Your task to perform on an android device: delete browsing data in the chrome app Image 0: 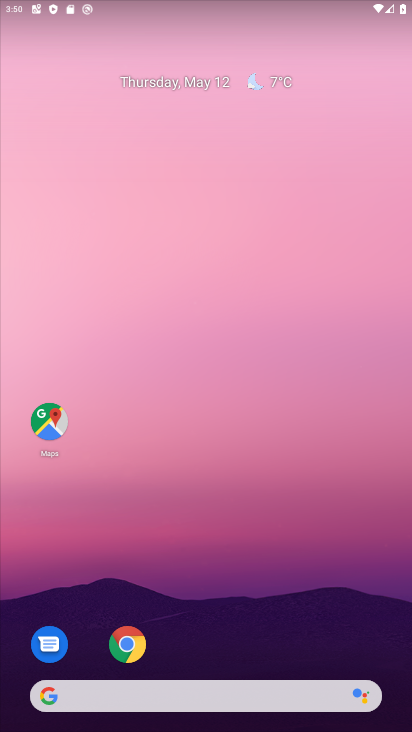
Step 0: drag from (205, 667) to (224, 145)
Your task to perform on an android device: delete browsing data in the chrome app Image 1: 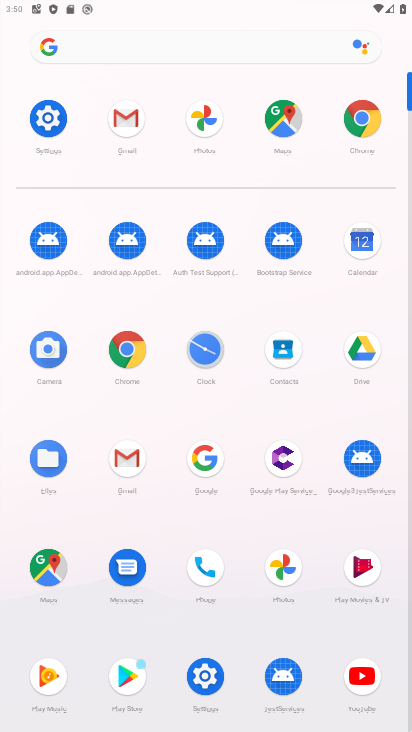
Step 1: click (125, 346)
Your task to perform on an android device: delete browsing data in the chrome app Image 2: 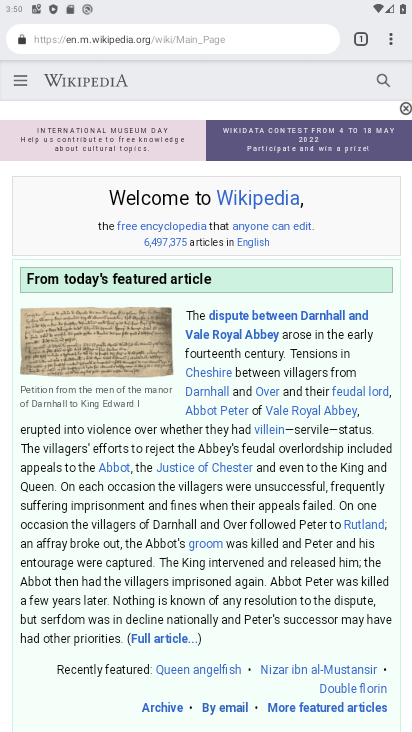
Step 2: click (387, 29)
Your task to perform on an android device: delete browsing data in the chrome app Image 3: 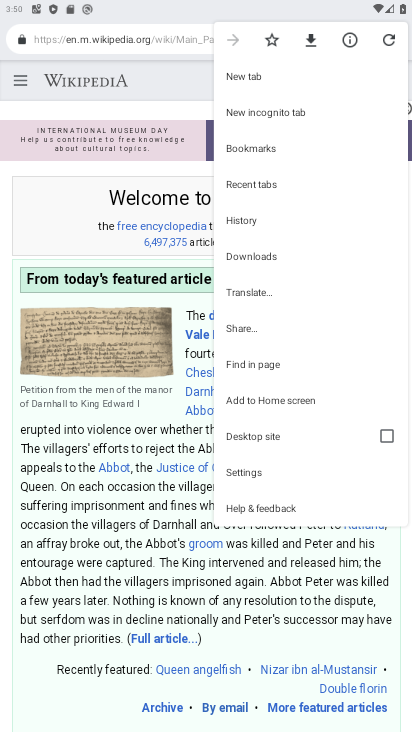
Step 3: click (259, 221)
Your task to perform on an android device: delete browsing data in the chrome app Image 4: 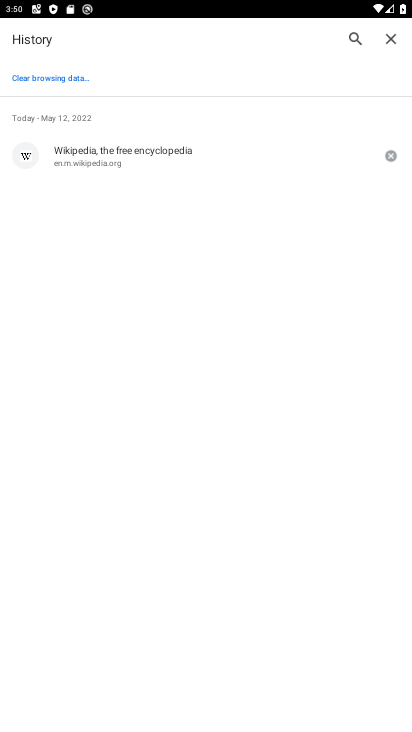
Step 4: click (55, 80)
Your task to perform on an android device: delete browsing data in the chrome app Image 5: 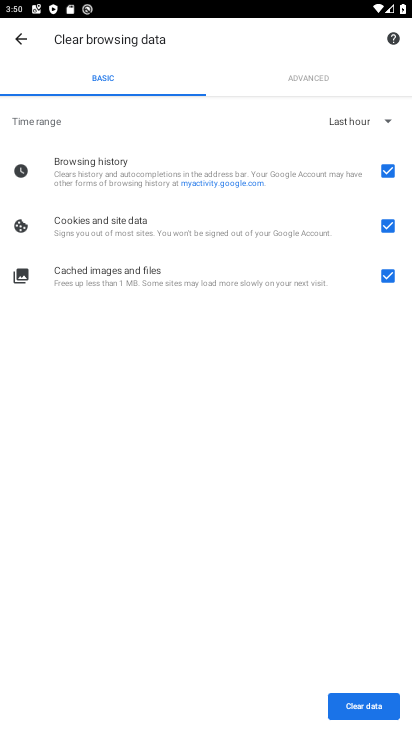
Step 5: click (361, 703)
Your task to perform on an android device: delete browsing data in the chrome app Image 6: 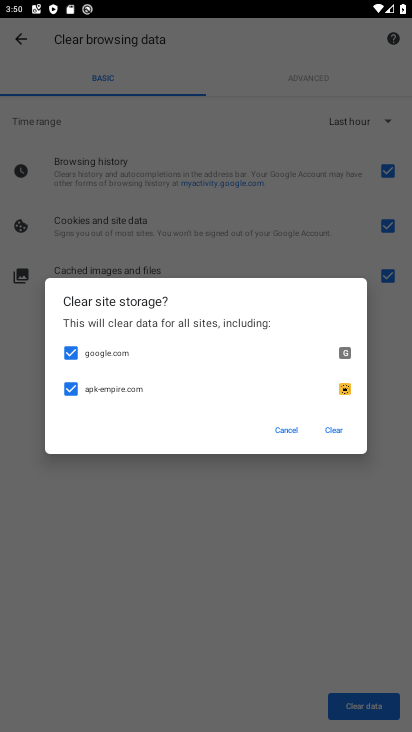
Step 6: click (334, 431)
Your task to perform on an android device: delete browsing data in the chrome app Image 7: 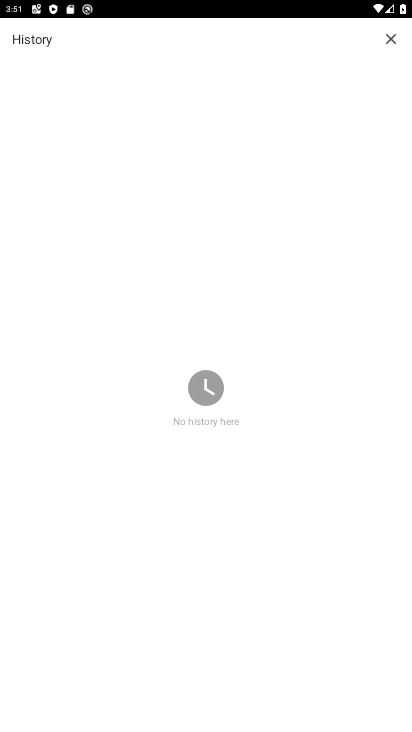
Step 7: task complete